Your task to perform on an android device: turn on translation in the chrome app Image 0: 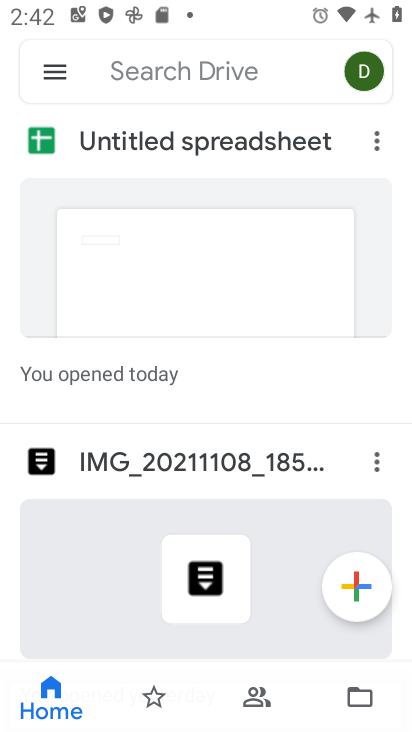
Step 0: press home button
Your task to perform on an android device: turn on translation in the chrome app Image 1: 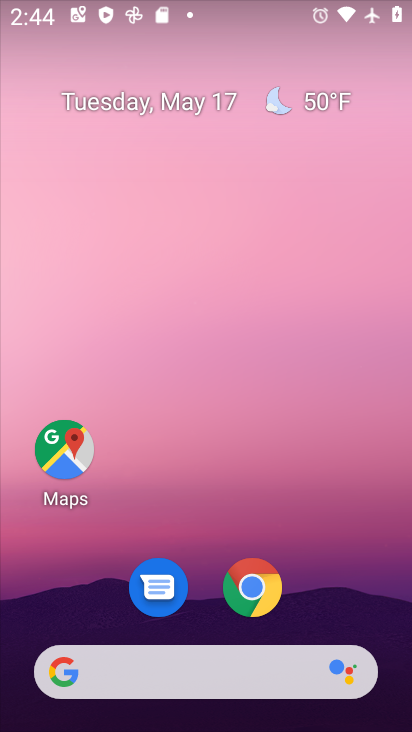
Step 1: click (241, 585)
Your task to perform on an android device: turn on translation in the chrome app Image 2: 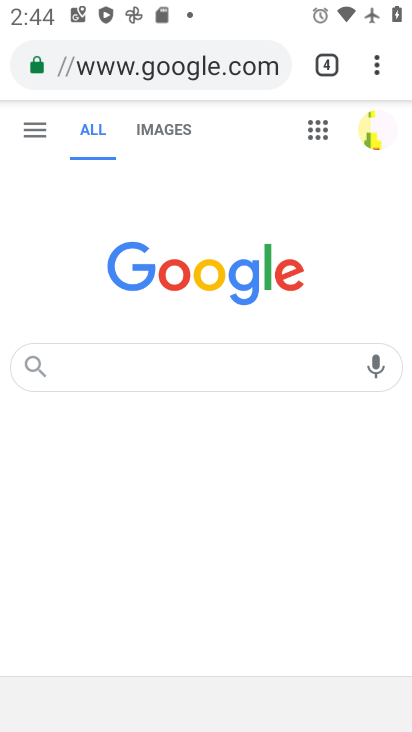
Step 2: click (376, 79)
Your task to perform on an android device: turn on translation in the chrome app Image 3: 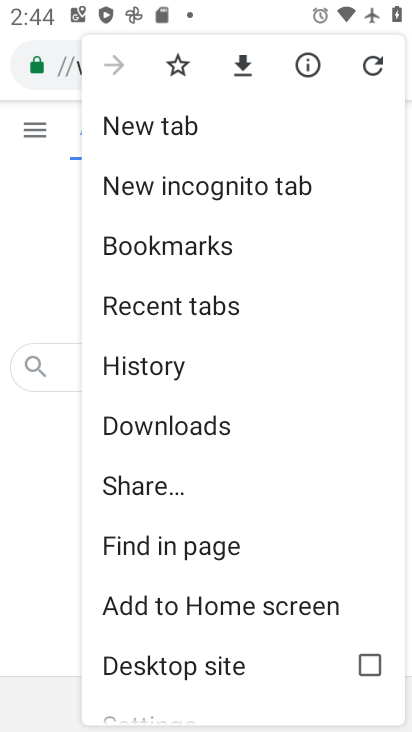
Step 3: drag from (139, 669) to (181, 297)
Your task to perform on an android device: turn on translation in the chrome app Image 4: 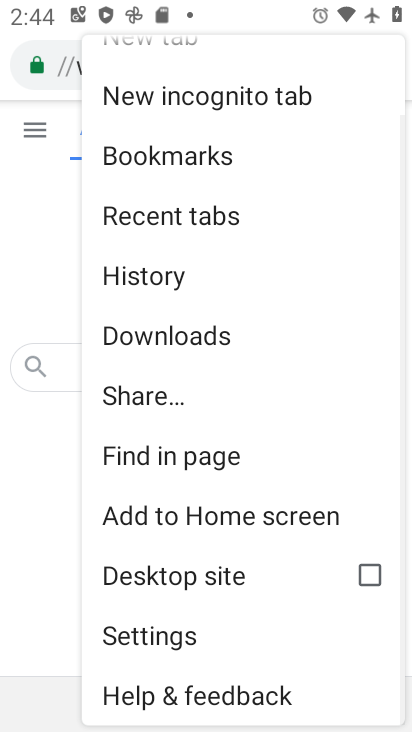
Step 4: click (168, 618)
Your task to perform on an android device: turn on translation in the chrome app Image 5: 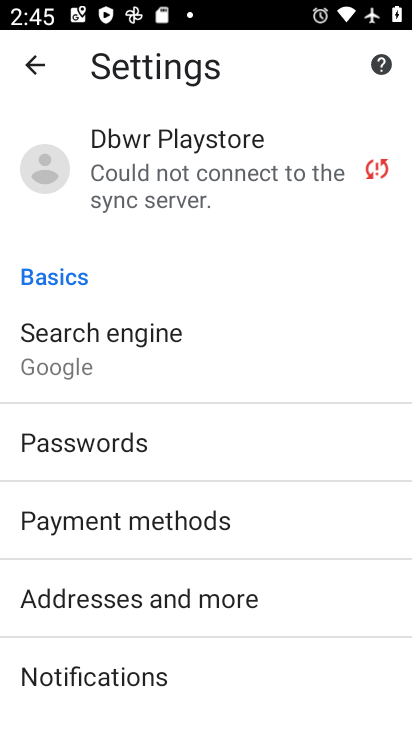
Step 5: drag from (172, 541) to (199, 358)
Your task to perform on an android device: turn on translation in the chrome app Image 6: 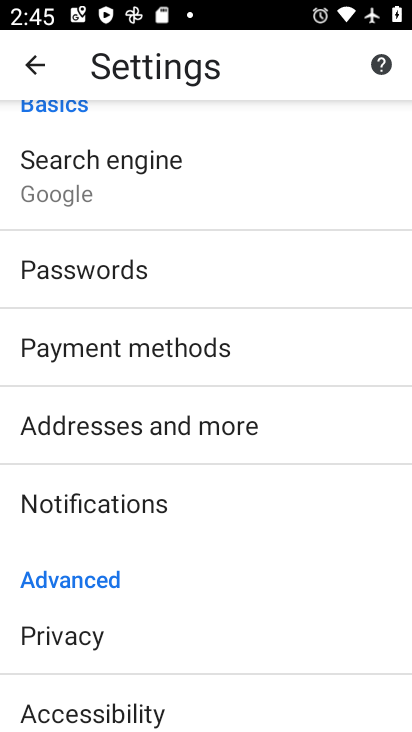
Step 6: drag from (230, 647) to (231, 272)
Your task to perform on an android device: turn on translation in the chrome app Image 7: 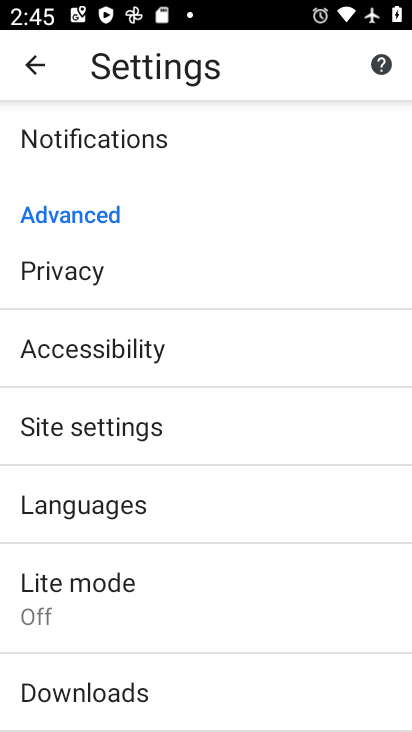
Step 7: click (253, 431)
Your task to perform on an android device: turn on translation in the chrome app Image 8: 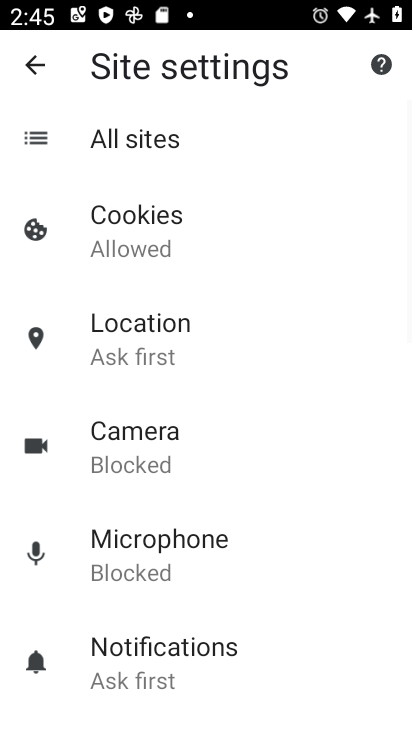
Step 8: click (38, 64)
Your task to perform on an android device: turn on translation in the chrome app Image 9: 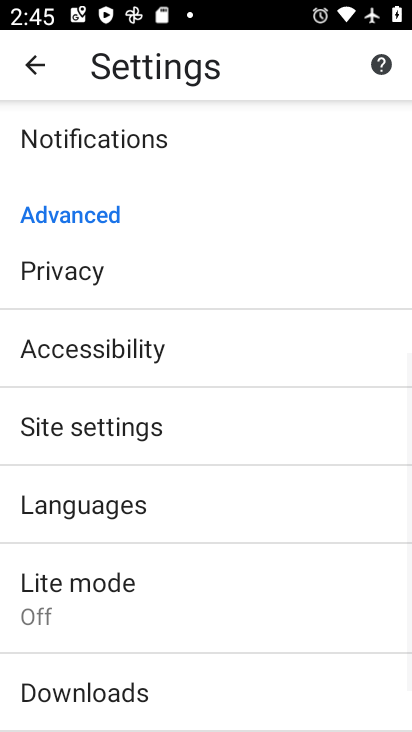
Step 9: click (164, 530)
Your task to perform on an android device: turn on translation in the chrome app Image 10: 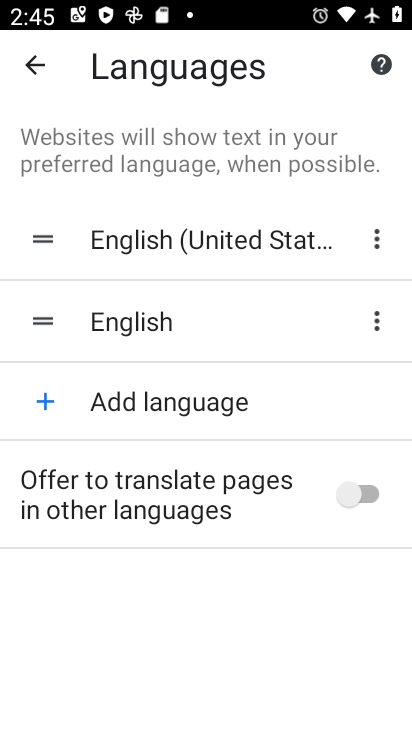
Step 10: click (345, 520)
Your task to perform on an android device: turn on translation in the chrome app Image 11: 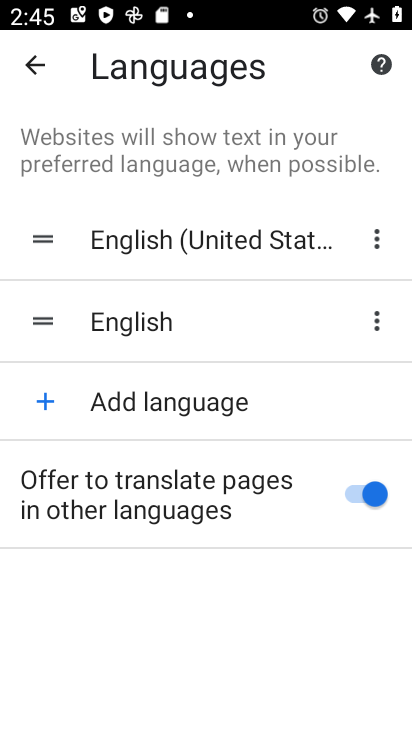
Step 11: task complete